Your task to perform on an android device: turn off airplane mode Image 0: 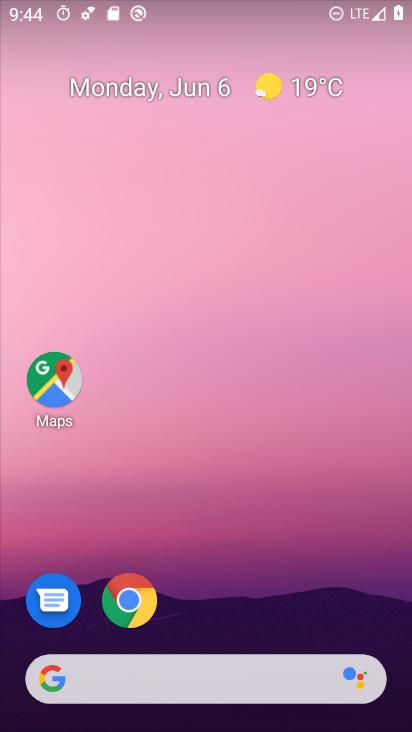
Step 0: drag from (295, 548) to (151, 15)
Your task to perform on an android device: turn off airplane mode Image 1: 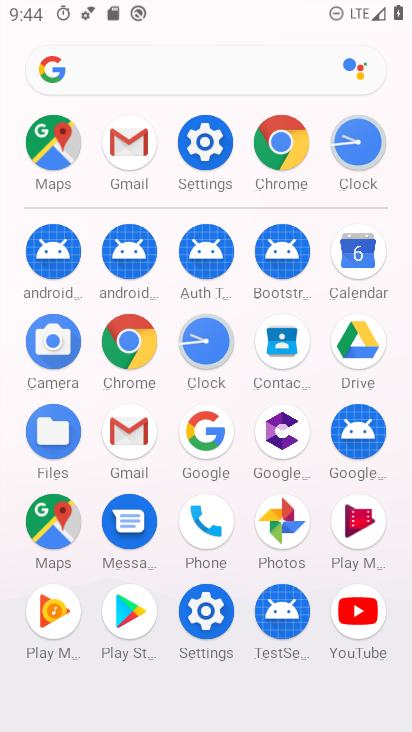
Step 1: click (205, 131)
Your task to perform on an android device: turn off airplane mode Image 2: 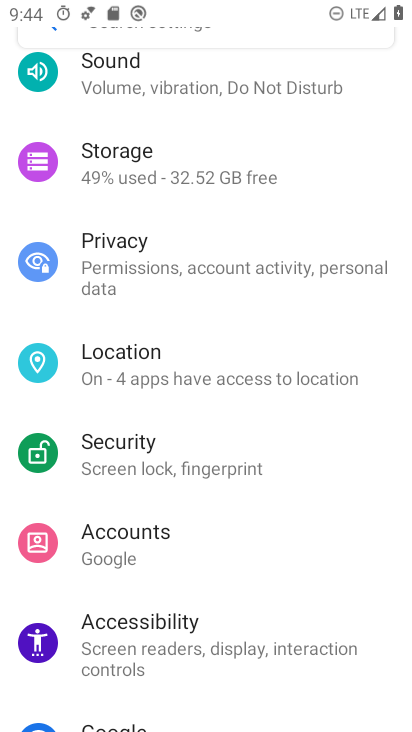
Step 2: click (254, 621)
Your task to perform on an android device: turn off airplane mode Image 3: 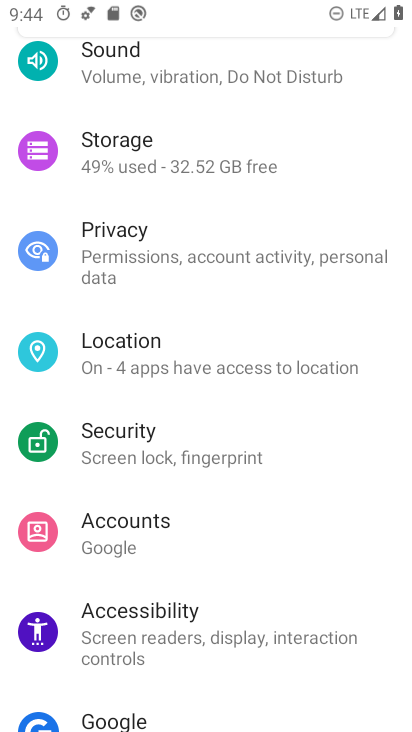
Step 3: drag from (208, 133) to (235, 637)
Your task to perform on an android device: turn off airplane mode Image 4: 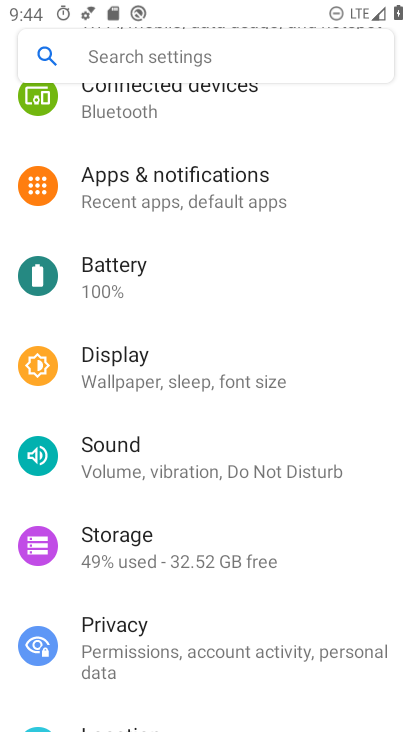
Step 4: drag from (238, 158) to (257, 660)
Your task to perform on an android device: turn off airplane mode Image 5: 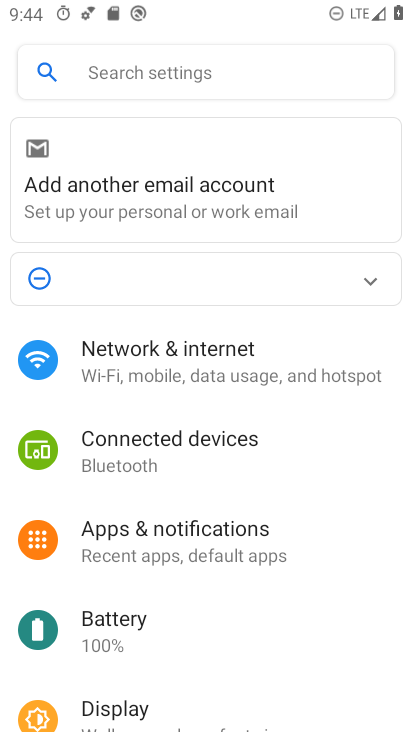
Step 5: click (224, 368)
Your task to perform on an android device: turn off airplane mode Image 6: 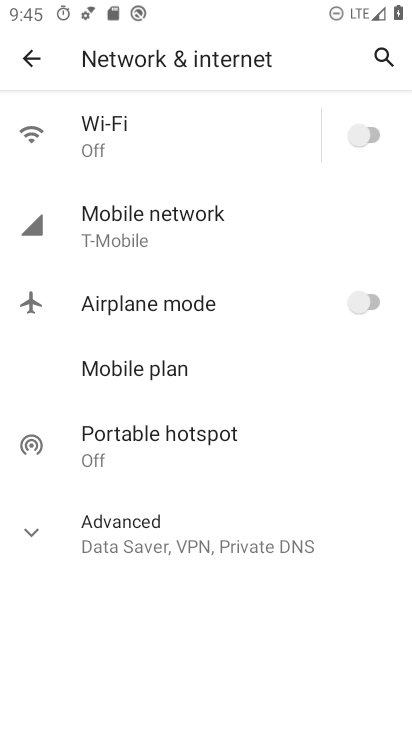
Step 6: task complete